Your task to perform on an android device: toggle pop-ups in chrome Image 0: 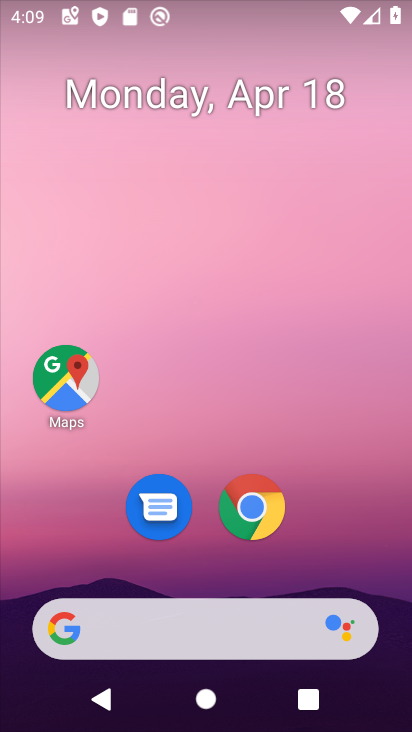
Step 0: click (259, 511)
Your task to perform on an android device: toggle pop-ups in chrome Image 1: 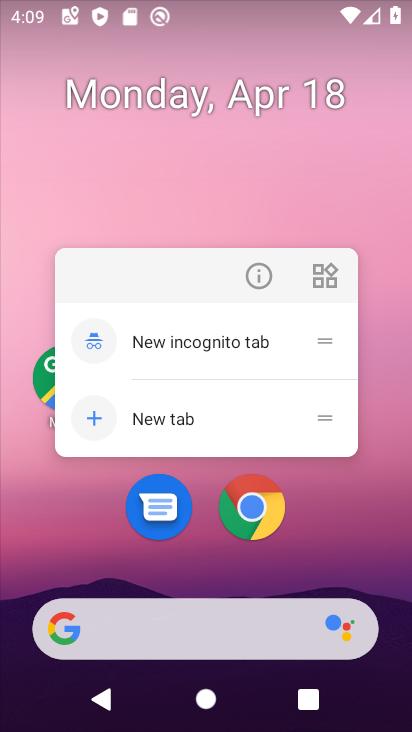
Step 1: click (259, 511)
Your task to perform on an android device: toggle pop-ups in chrome Image 2: 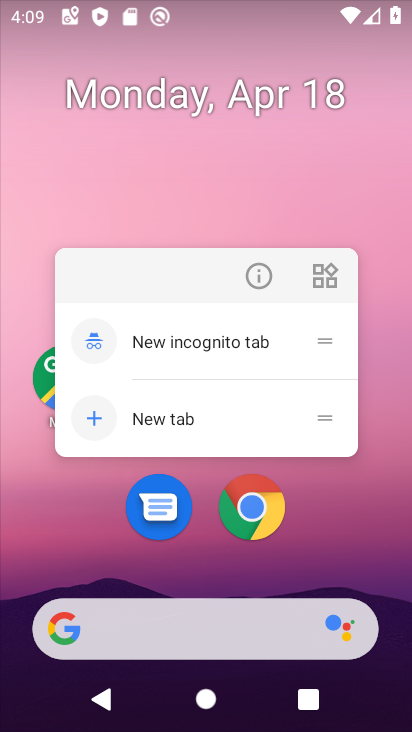
Step 2: click (259, 511)
Your task to perform on an android device: toggle pop-ups in chrome Image 3: 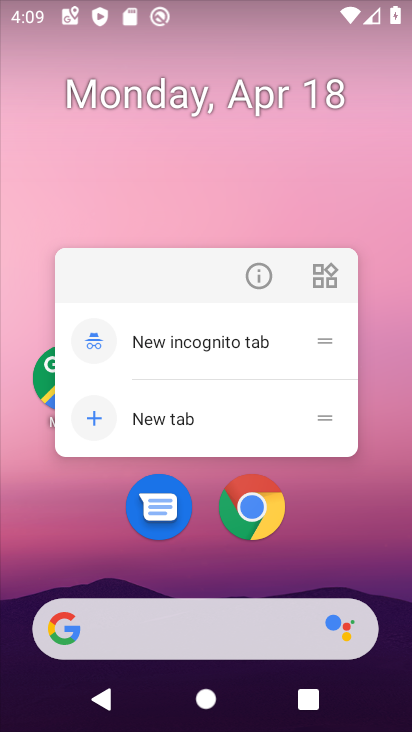
Step 3: click (259, 511)
Your task to perform on an android device: toggle pop-ups in chrome Image 4: 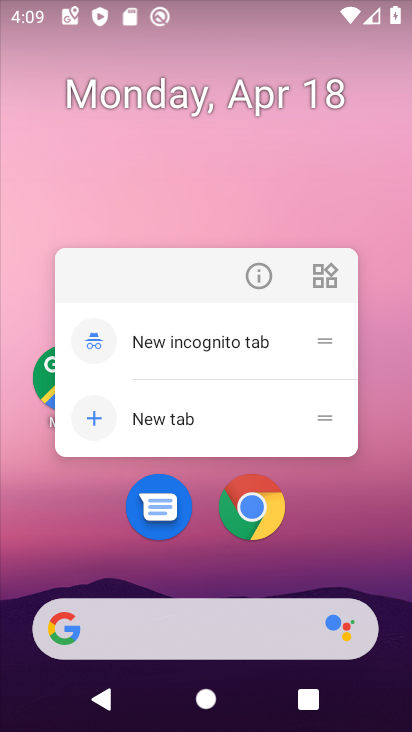
Step 4: click (259, 511)
Your task to perform on an android device: toggle pop-ups in chrome Image 5: 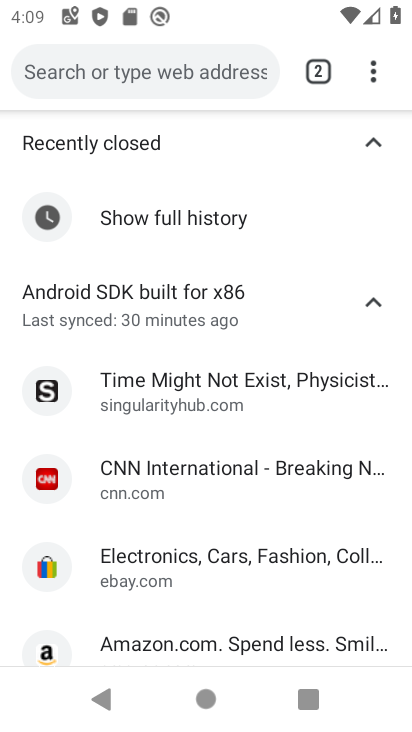
Step 5: click (381, 73)
Your task to perform on an android device: toggle pop-ups in chrome Image 6: 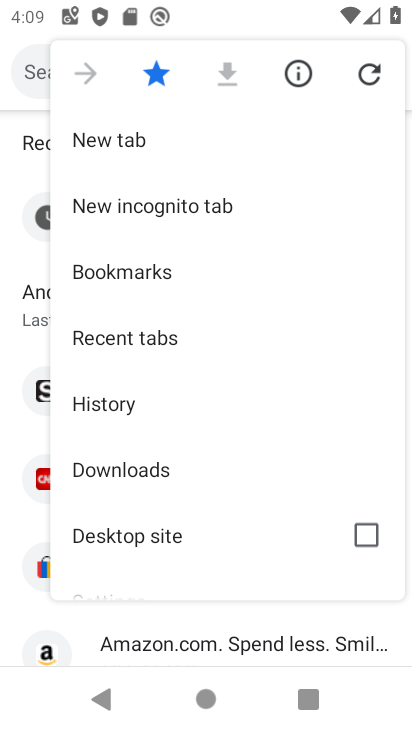
Step 6: click (181, 587)
Your task to perform on an android device: toggle pop-ups in chrome Image 7: 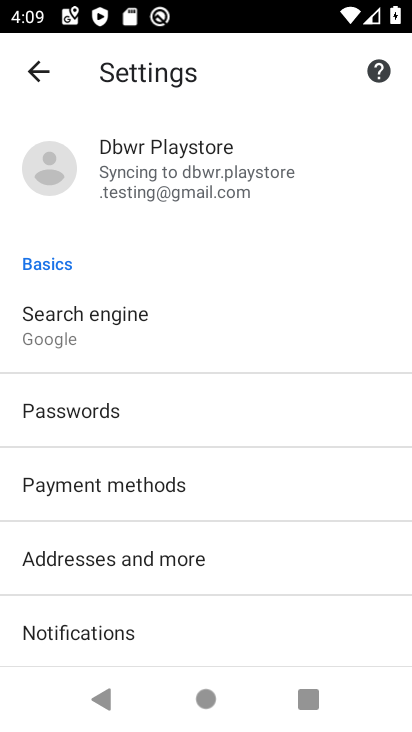
Step 7: drag from (348, 577) to (345, 123)
Your task to perform on an android device: toggle pop-ups in chrome Image 8: 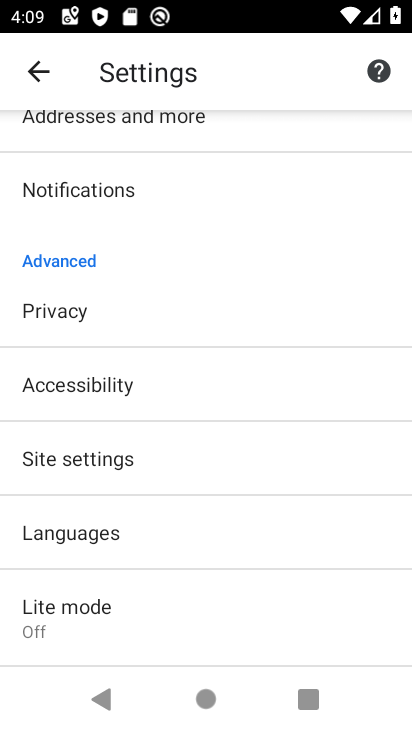
Step 8: click (157, 467)
Your task to perform on an android device: toggle pop-ups in chrome Image 9: 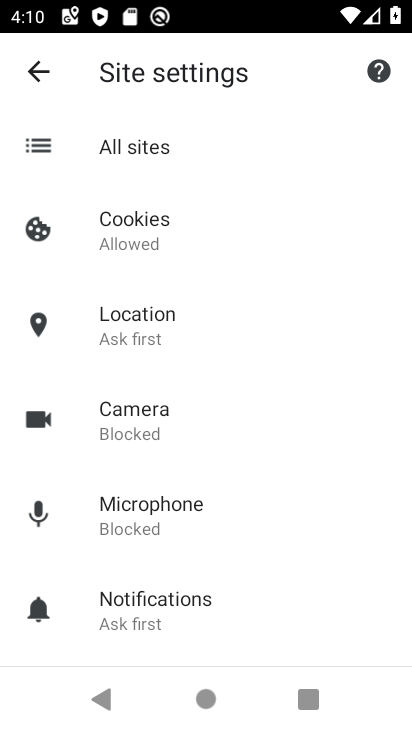
Step 9: drag from (219, 583) to (231, 93)
Your task to perform on an android device: toggle pop-ups in chrome Image 10: 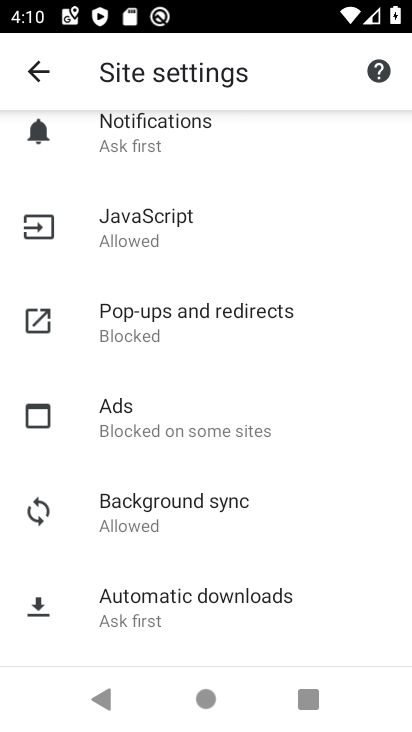
Step 10: click (278, 325)
Your task to perform on an android device: toggle pop-ups in chrome Image 11: 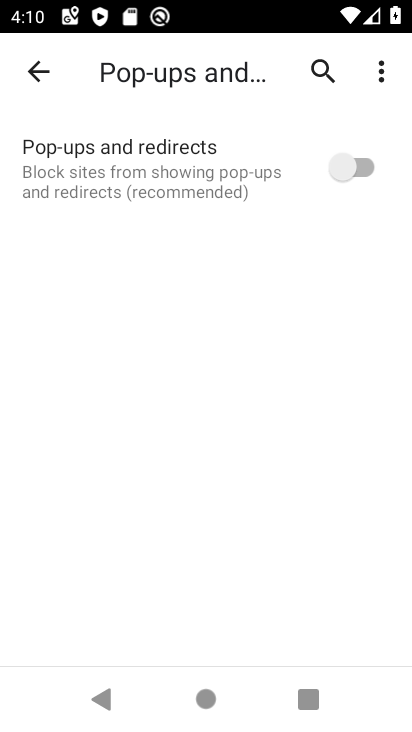
Step 11: click (362, 162)
Your task to perform on an android device: toggle pop-ups in chrome Image 12: 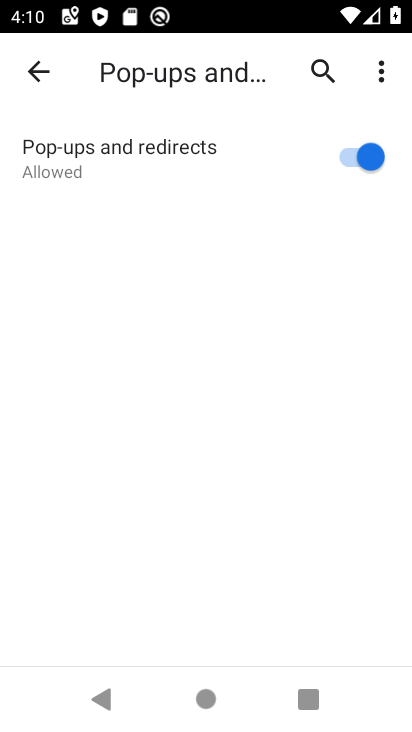
Step 12: task complete